Your task to perform on an android device: Go to Reddit.com Image 0: 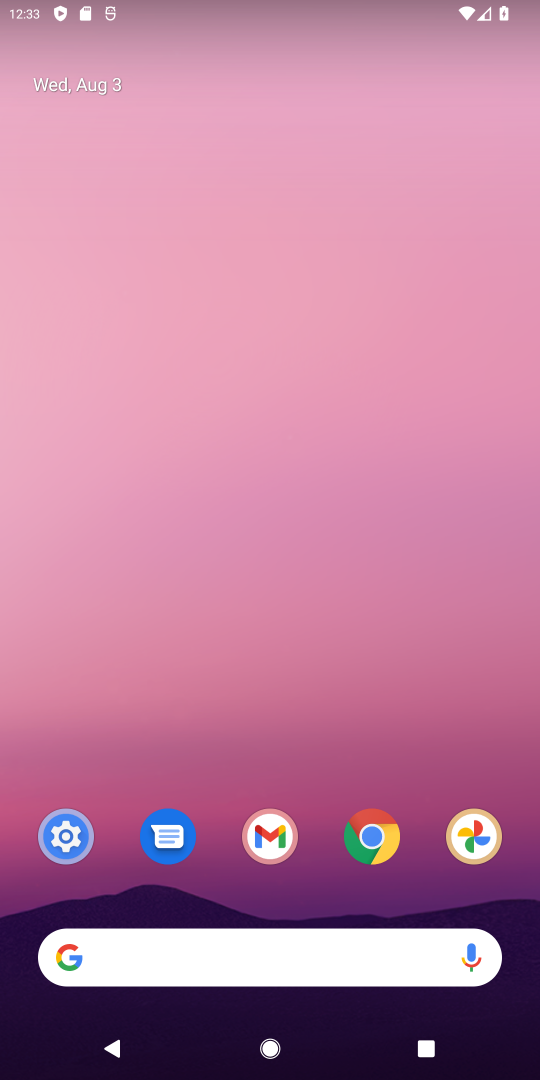
Step 0: drag from (207, 749) to (191, 347)
Your task to perform on an android device: Go to Reddit.com Image 1: 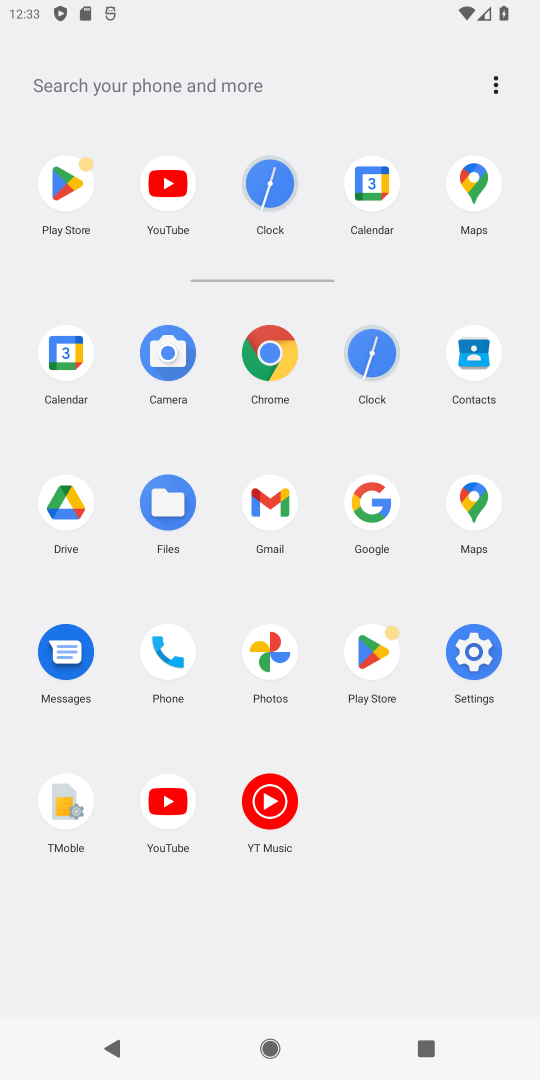
Step 1: click (129, 85)
Your task to perform on an android device: Go to Reddit.com Image 2: 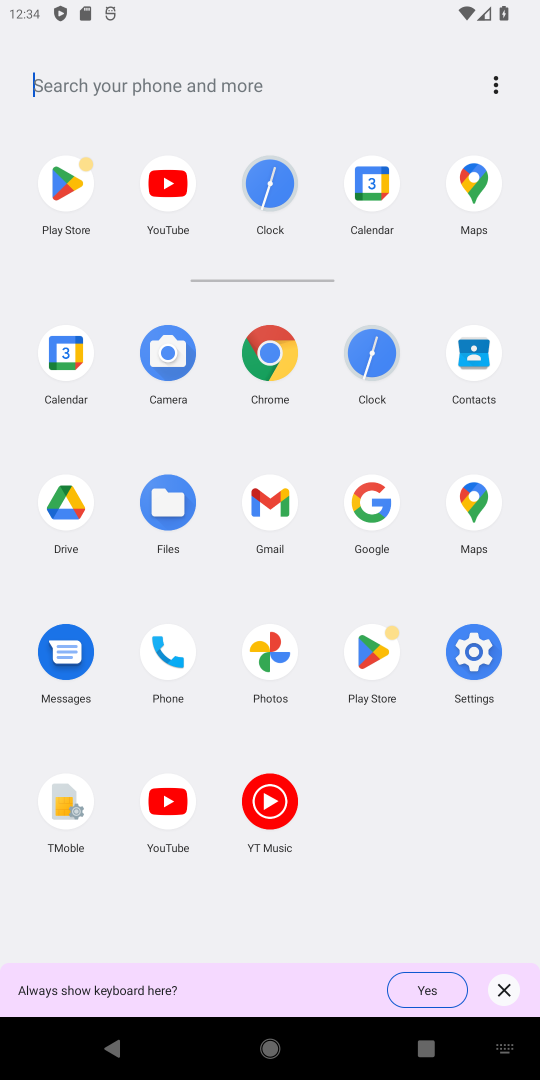
Step 2: type "Reddit.com"
Your task to perform on an android device: Go to Reddit.com Image 3: 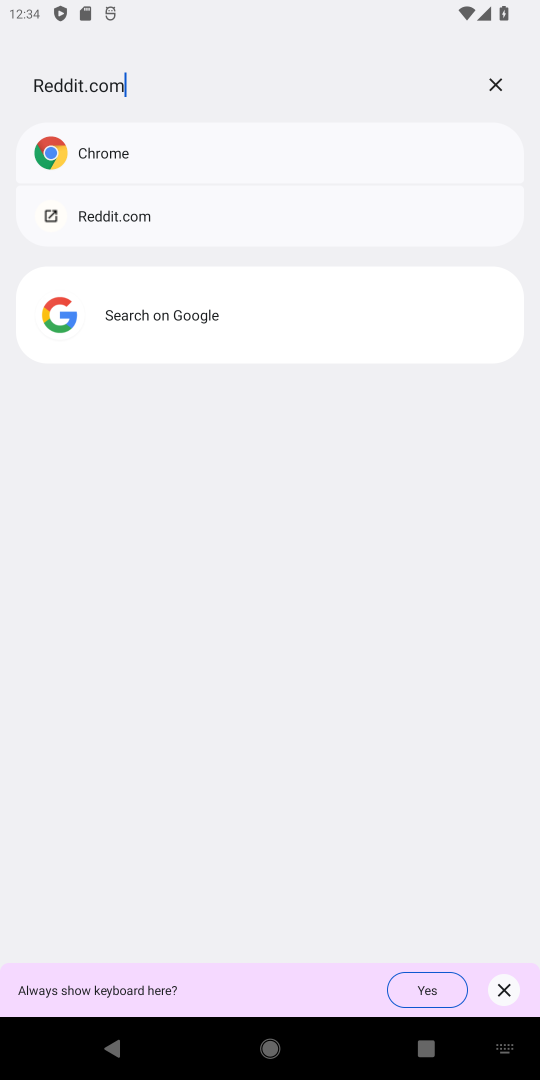
Step 3: click (136, 159)
Your task to perform on an android device: Go to Reddit.com Image 4: 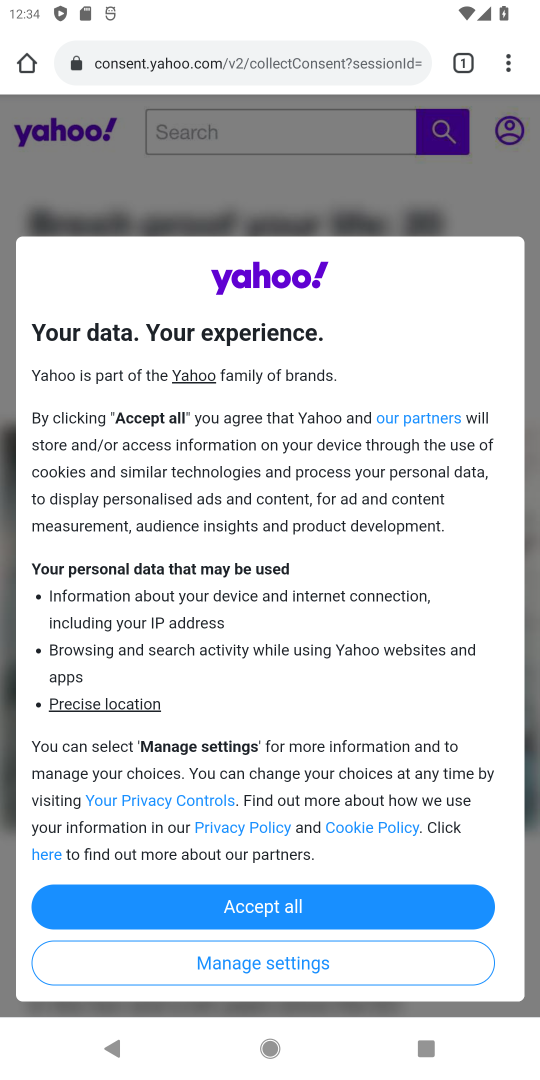
Step 4: drag from (360, 652) to (380, 420)
Your task to perform on an android device: Go to Reddit.com Image 5: 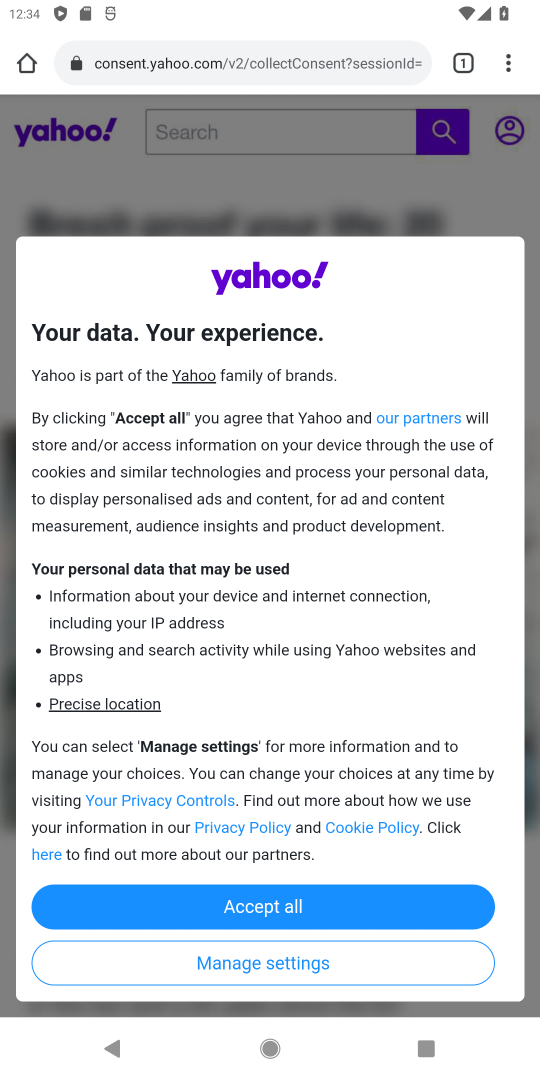
Step 5: drag from (260, 703) to (321, 332)
Your task to perform on an android device: Go to Reddit.com Image 6: 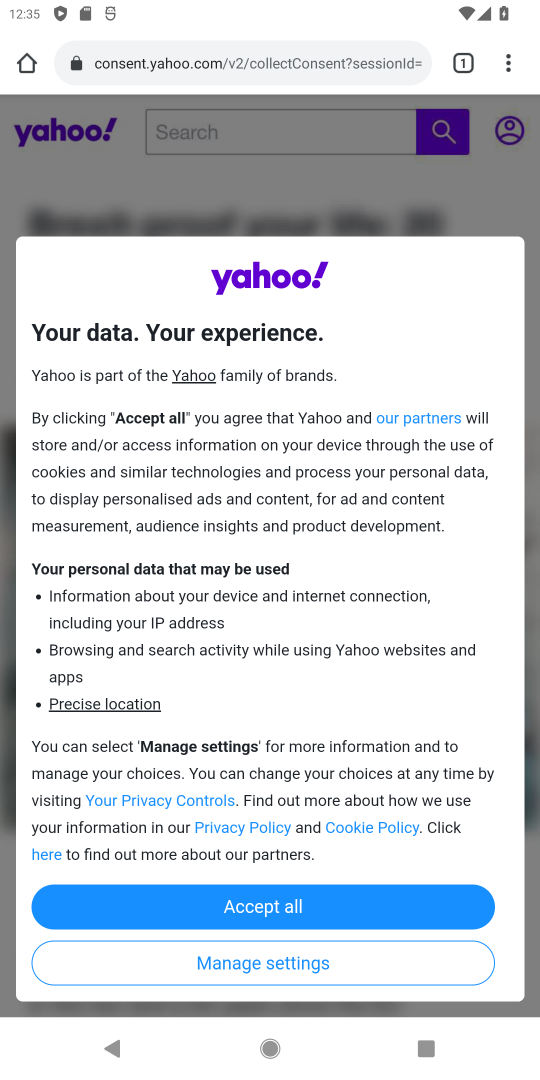
Step 6: click (205, 74)
Your task to perform on an android device: Go to Reddit.com Image 7: 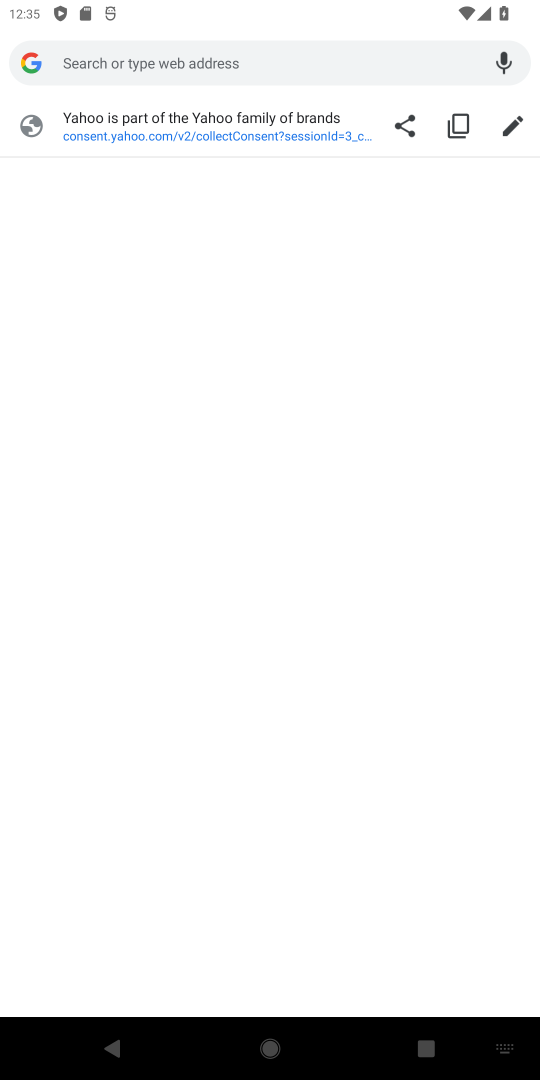
Step 7: type "Reddit.com"
Your task to perform on an android device: Go to Reddit.com Image 8: 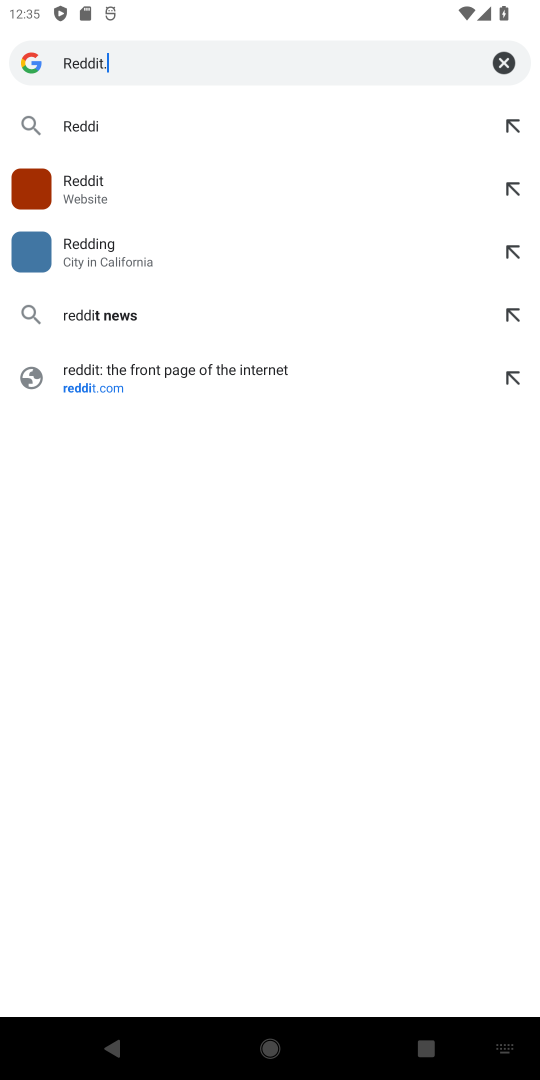
Step 8: type ""
Your task to perform on an android device: Go to Reddit.com Image 9: 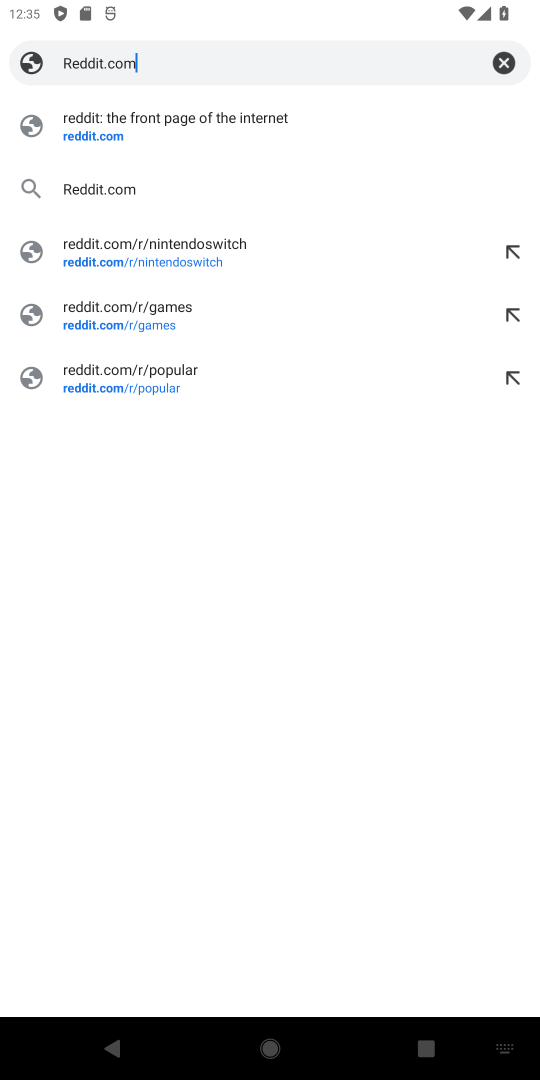
Step 9: click (85, 123)
Your task to perform on an android device: Go to Reddit.com Image 10: 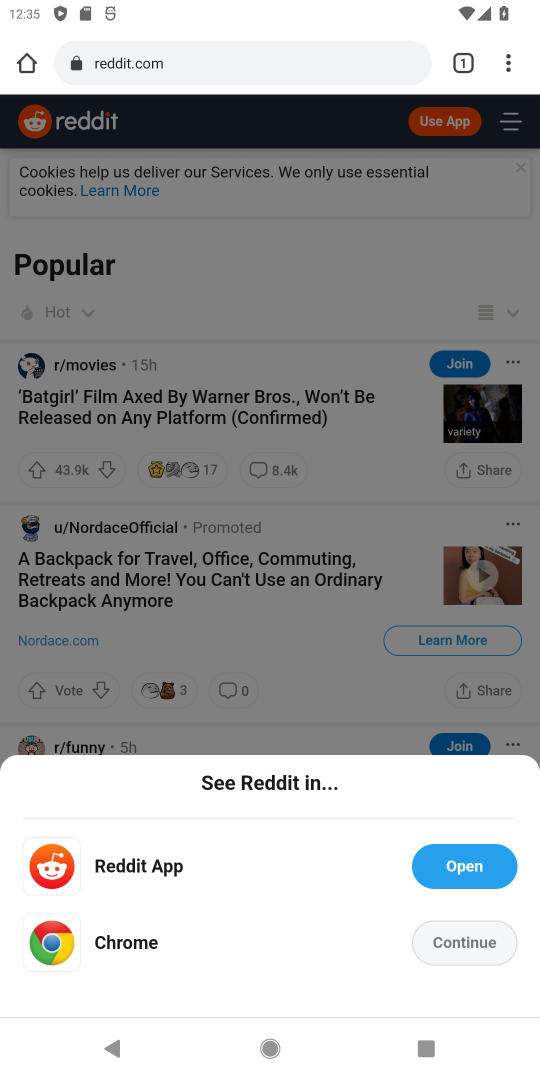
Step 10: task complete